Your task to perform on an android device: Open Chrome and go to the settings page Image 0: 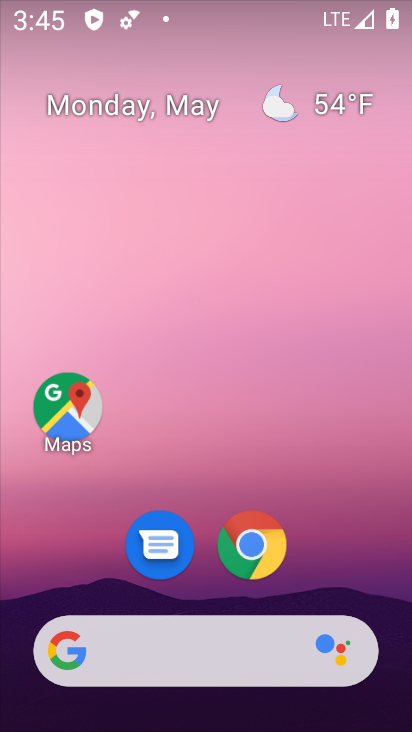
Step 0: click (247, 546)
Your task to perform on an android device: Open Chrome and go to the settings page Image 1: 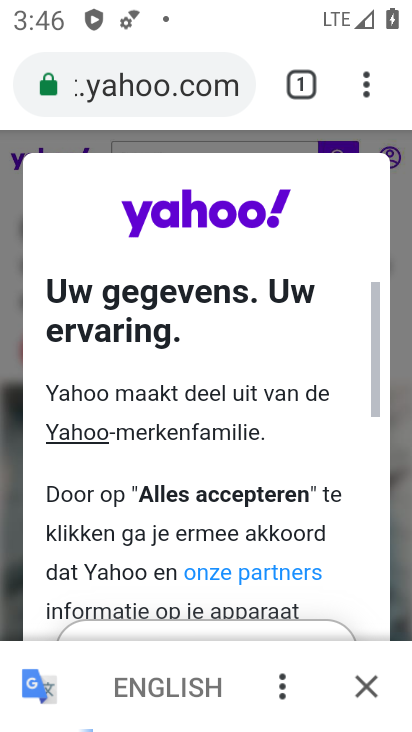
Step 1: click (367, 94)
Your task to perform on an android device: Open Chrome and go to the settings page Image 2: 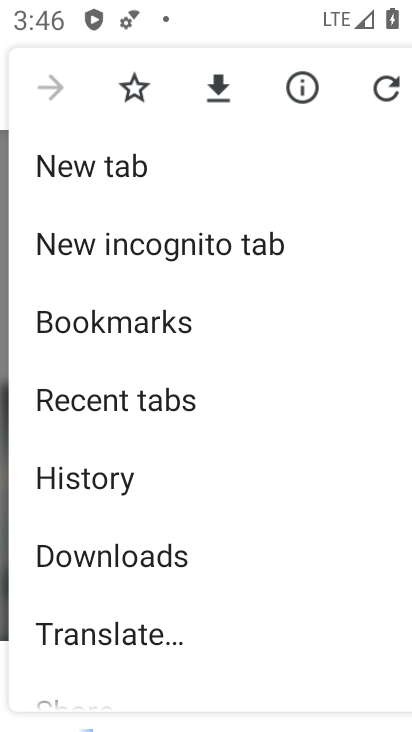
Step 2: drag from (228, 664) to (242, 286)
Your task to perform on an android device: Open Chrome and go to the settings page Image 3: 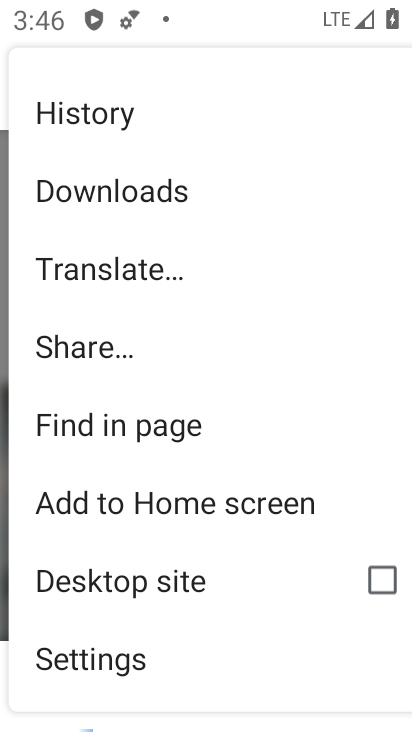
Step 3: drag from (210, 656) to (222, 460)
Your task to perform on an android device: Open Chrome and go to the settings page Image 4: 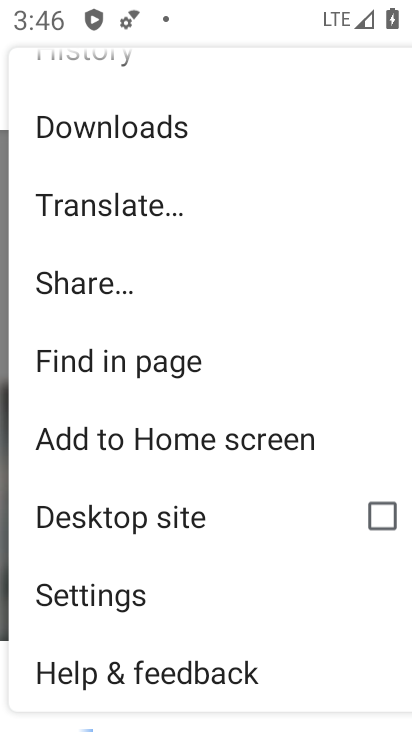
Step 4: click (103, 599)
Your task to perform on an android device: Open Chrome and go to the settings page Image 5: 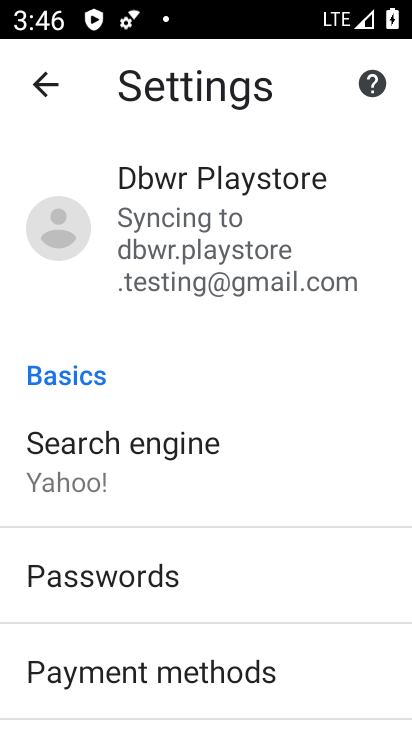
Step 5: task complete